Your task to perform on an android device: check data usage Image 0: 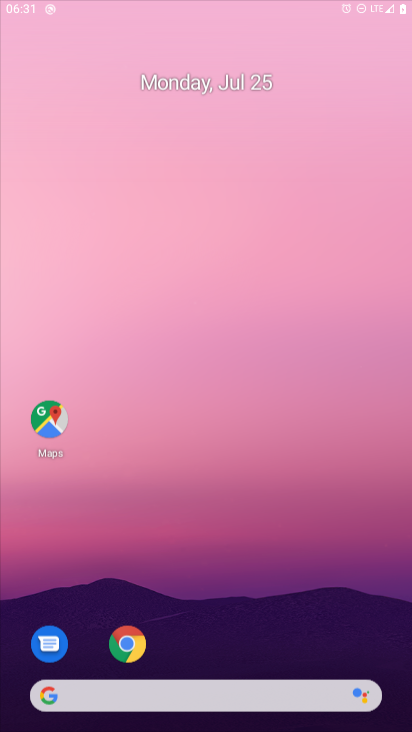
Step 0: press home button
Your task to perform on an android device: check data usage Image 1: 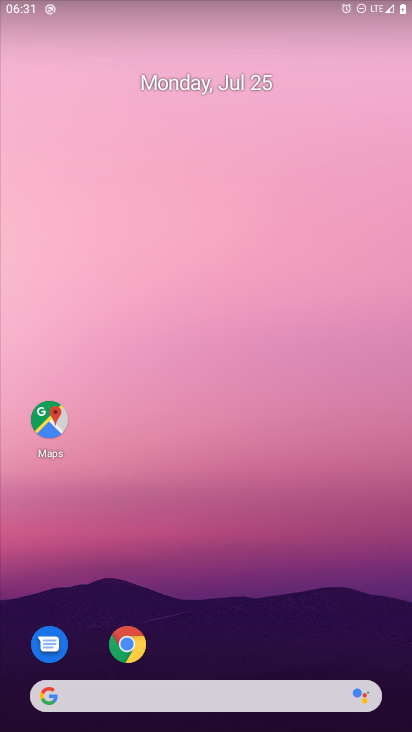
Step 1: drag from (215, 625) to (184, 158)
Your task to perform on an android device: check data usage Image 2: 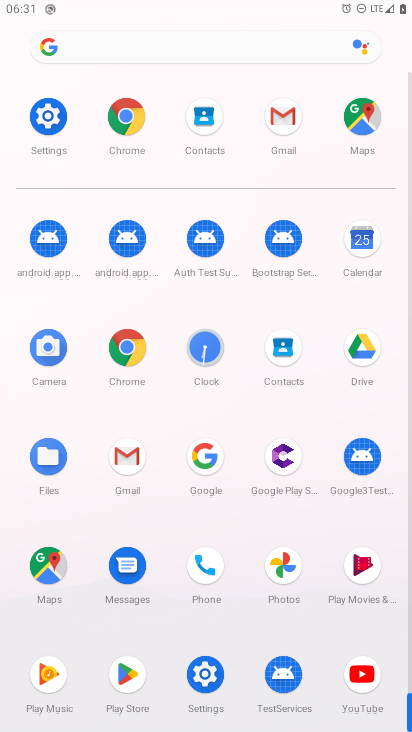
Step 2: click (44, 125)
Your task to perform on an android device: check data usage Image 3: 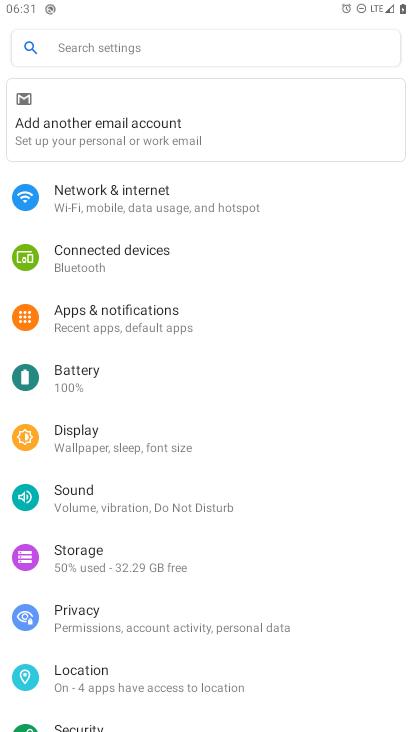
Step 3: click (150, 205)
Your task to perform on an android device: check data usage Image 4: 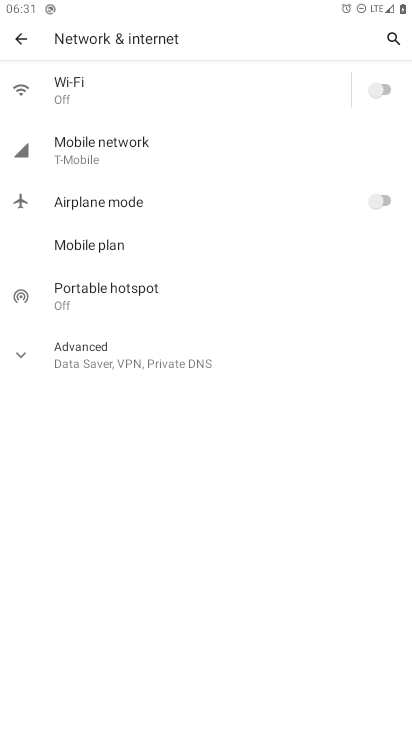
Step 4: click (108, 143)
Your task to perform on an android device: check data usage Image 5: 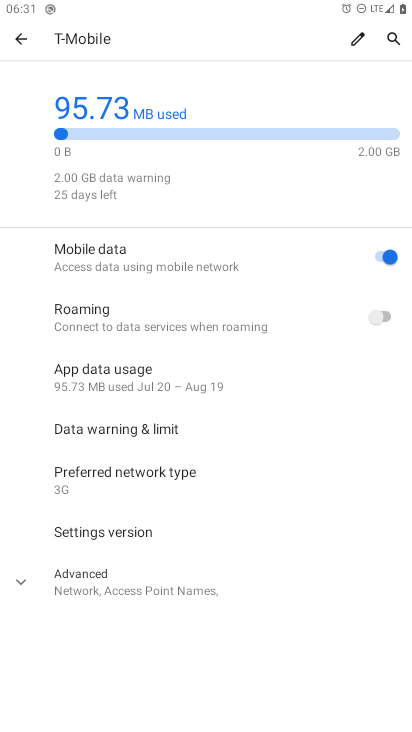
Step 5: click (101, 366)
Your task to perform on an android device: check data usage Image 6: 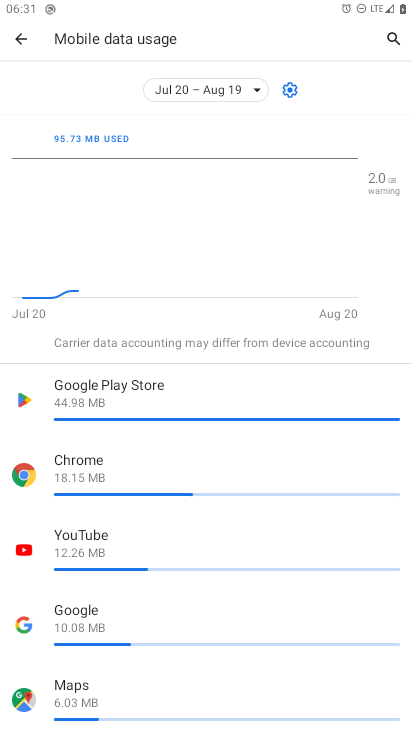
Step 6: task complete